Your task to perform on an android device: add a contact in the contacts app Image 0: 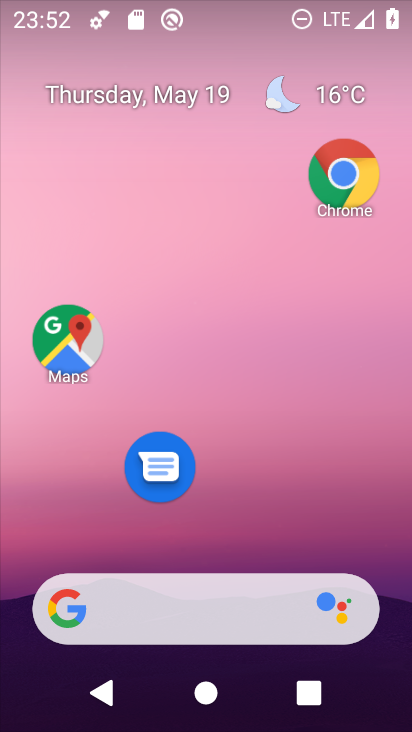
Step 0: drag from (246, 494) to (268, 269)
Your task to perform on an android device: add a contact in the contacts app Image 1: 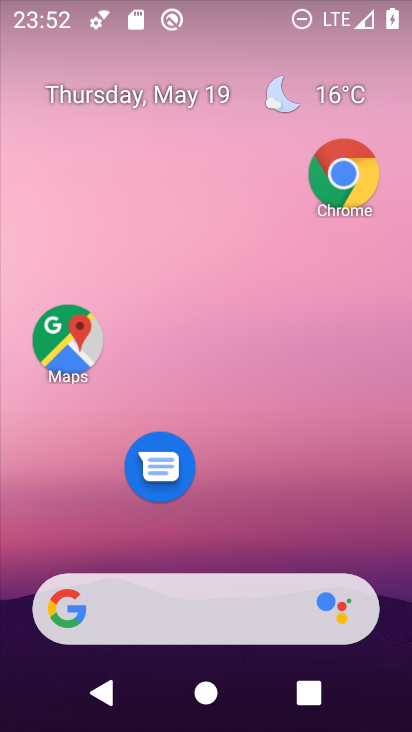
Step 1: drag from (243, 527) to (271, 168)
Your task to perform on an android device: add a contact in the contacts app Image 2: 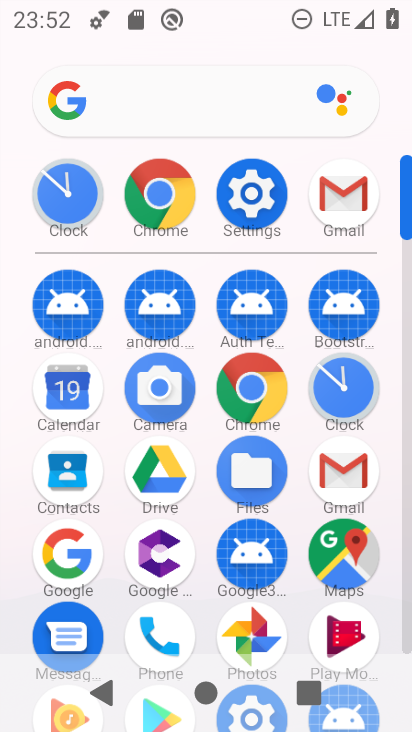
Step 2: click (168, 612)
Your task to perform on an android device: add a contact in the contacts app Image 3: 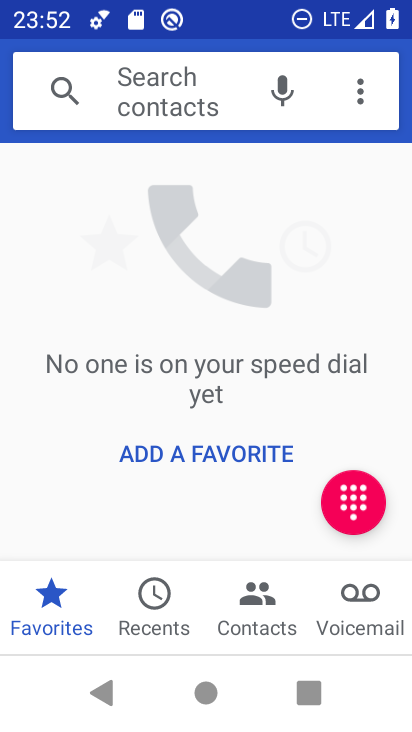
Step 3: click (221, 436)
Your task to perform on an android device: add a contact in the contacts app Image 4: 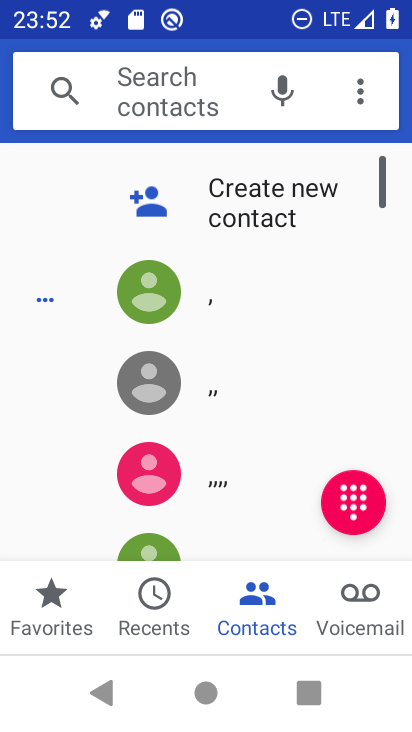
Step 4: click (242, 212)
Your task to perform on an android device: add a contact in the contacts app Image 5: 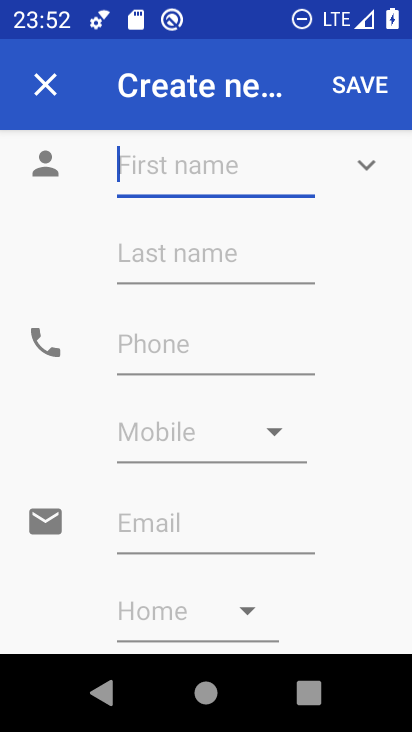
Step 5: click (181, 157)
Your task to perform on an android device: add a contact in the contacts app Image 6: 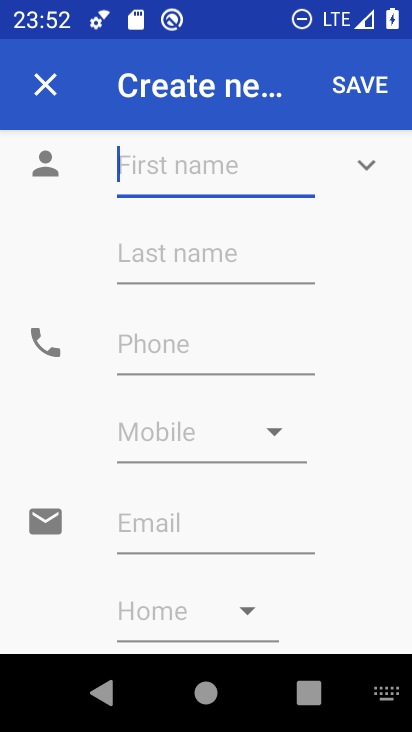
Step 6: type "xxxxxxxxxxxxxz"
Your task to perform on an android device: add a contact in the contacts app Image 7: 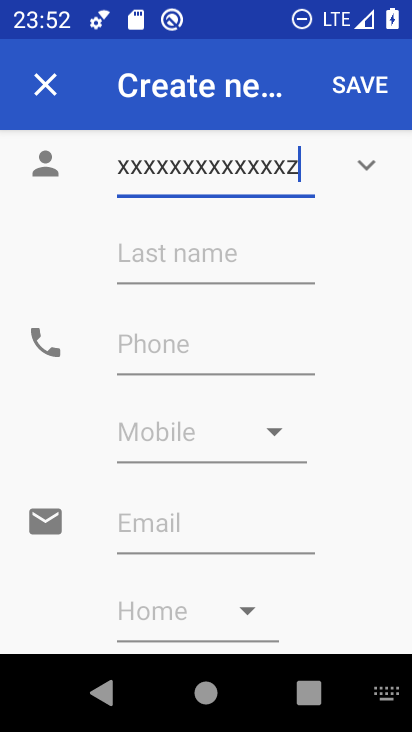
Step 7: click (138, 339)
Your task to perform on an android device: add a contact in the contacts app Image 8: 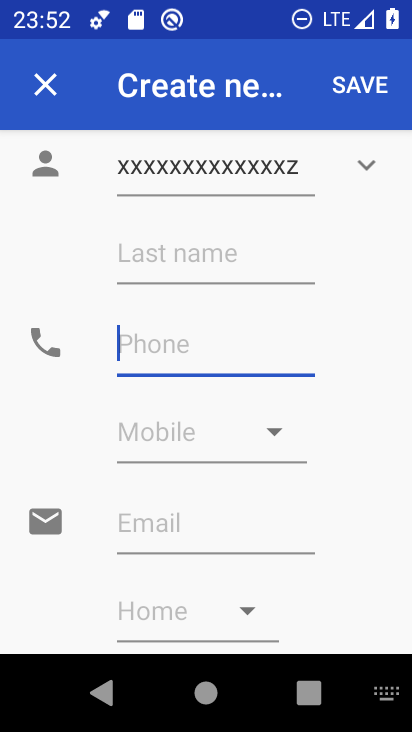
Step 8: type "7777777777776"
Your task to perform on an android device: add a contact in the contacts app Image 9: 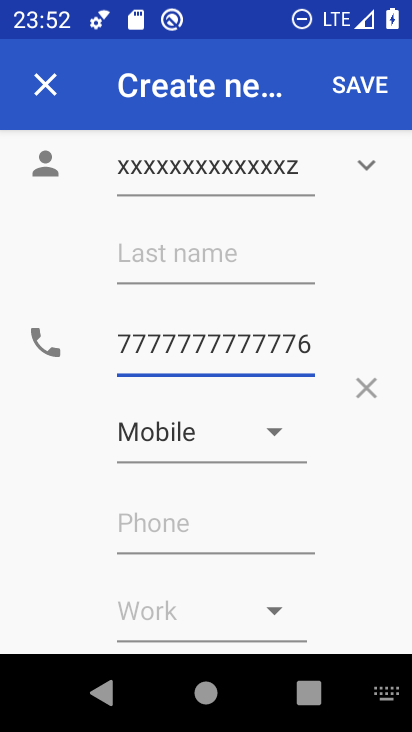
Step 9: click (355, 88)
Your task to perform on an android device: add a contact in the contacts app Image 10: 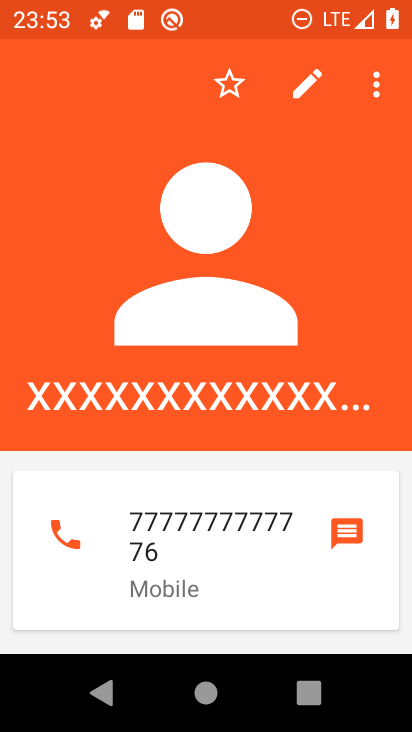
Step 10: task complete